Your task to perform on an android device: open chrome privacy settings Image 0: 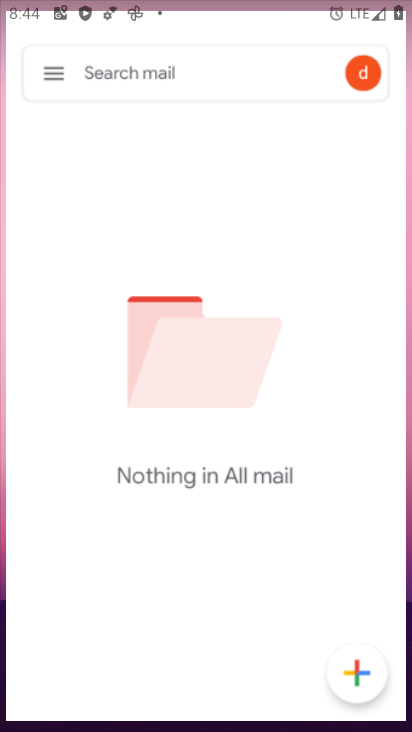
Step 0: press home button
Your task to perform on an android device: open chrome privacy settings Image 1: 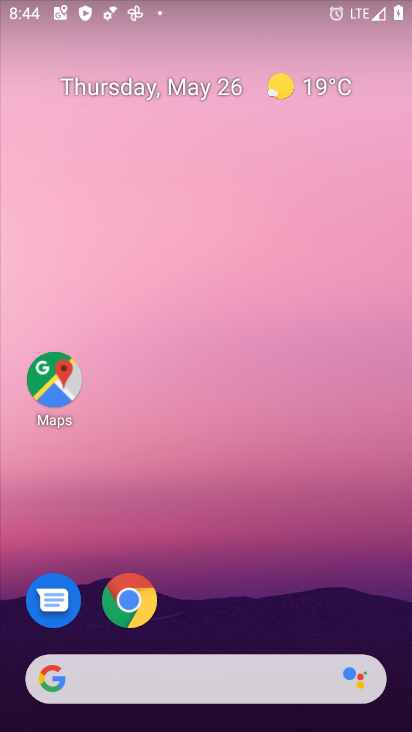
Step 1: click (118, 595)
Your task to perform on an android device: open chrome privacy settings Image 2: 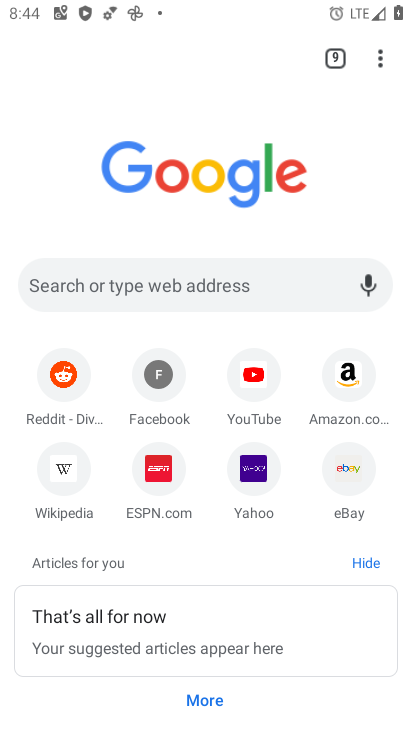
Step 2: drag from (380, 62) to (195, 492)
Your task to perform on an android device: open chrome privacy settings Image 3: 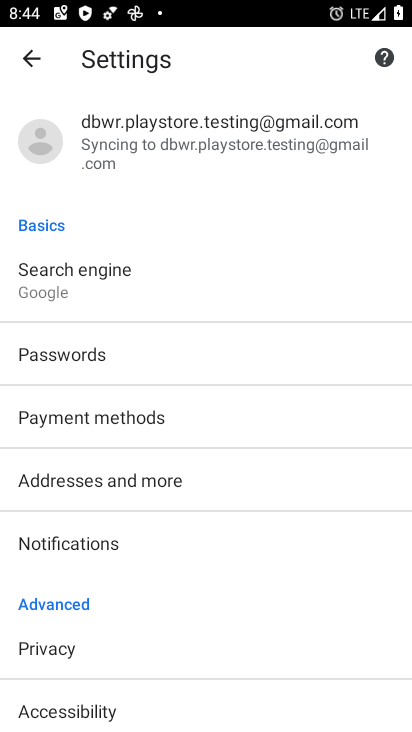
Step 3: drag from (175, 578) to (216, 316)
Your task to perform on an android device: open chrome privacy settings Image 4: 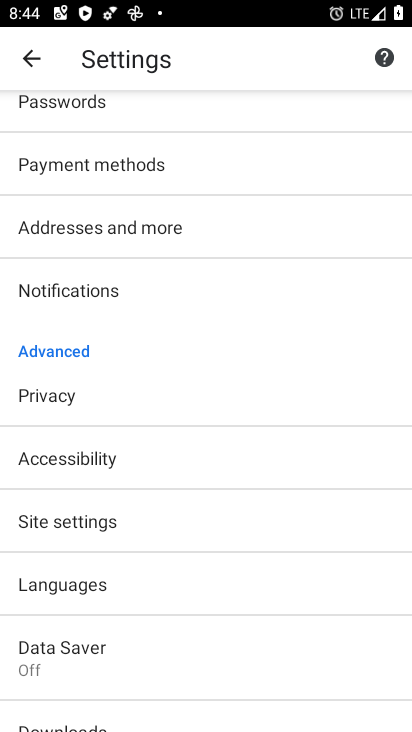
Step 4: click (43, 396)
Your task to perform on an android device: open chrome privacy settings Image 5: 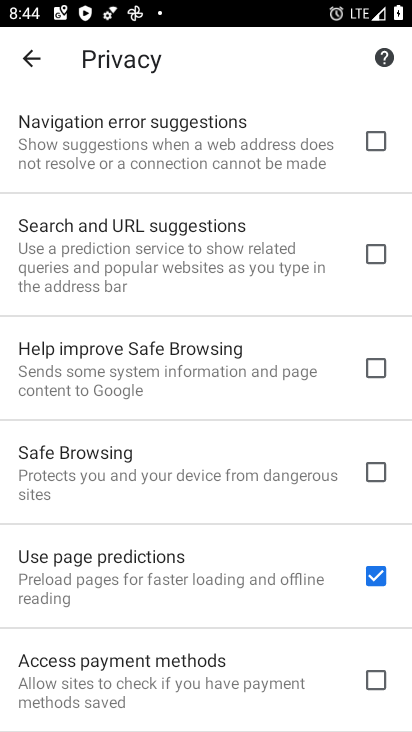
Step 5: task complete